Your task to perform on an android device: Add "apple airpods pro" to the cart on amazon Image 0: 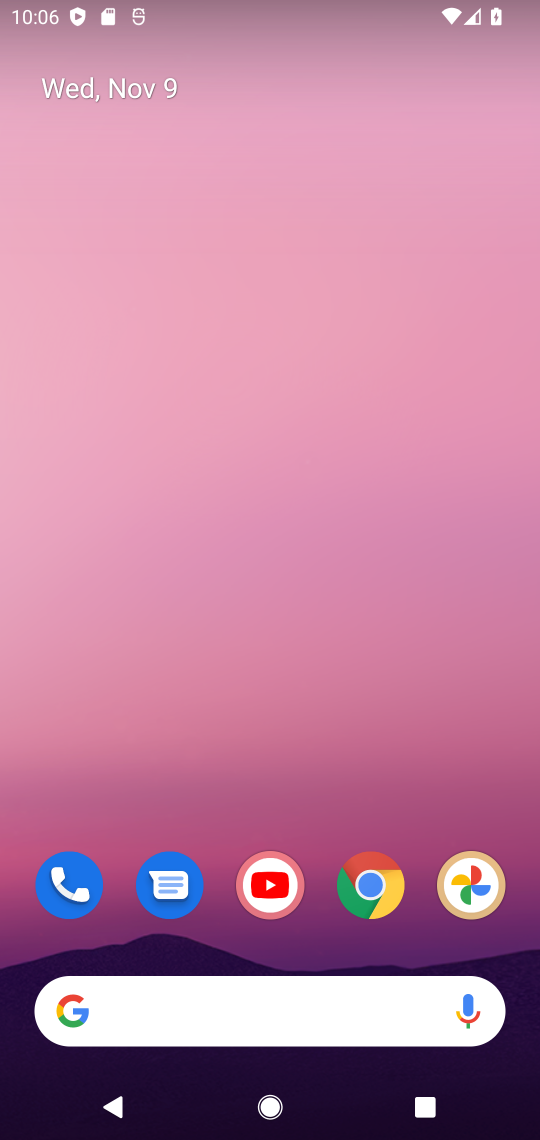
Step 0: click (358, 897)
Your task to perform on an android device: Add "apple airpods pro" to the cart on amazon Image 1: 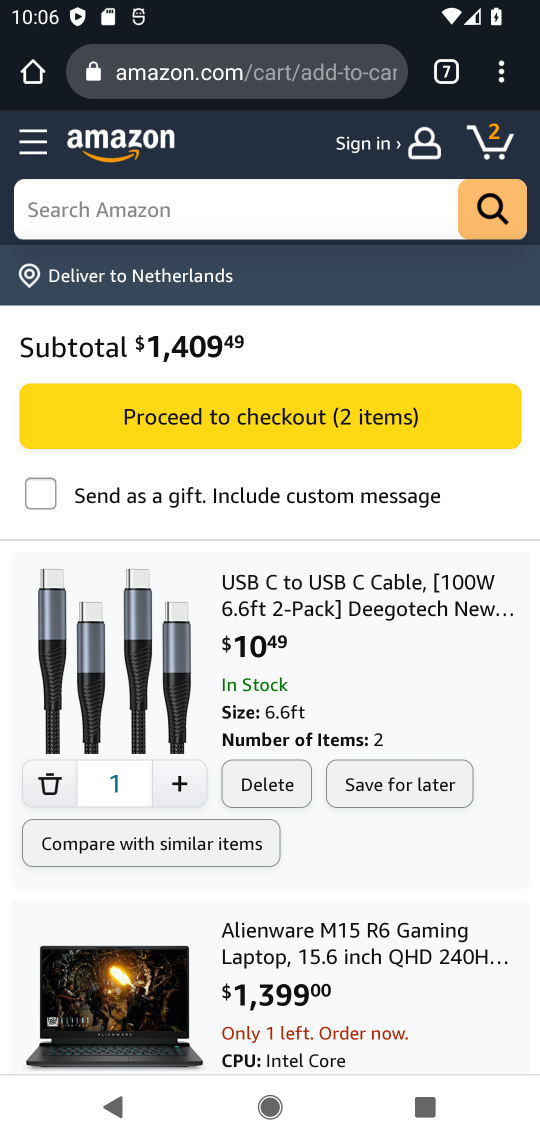
Step 1: click (229, 214)
Your task to perform on an android device: Add "apple airpods pro" to the cart on amazon Image 2: 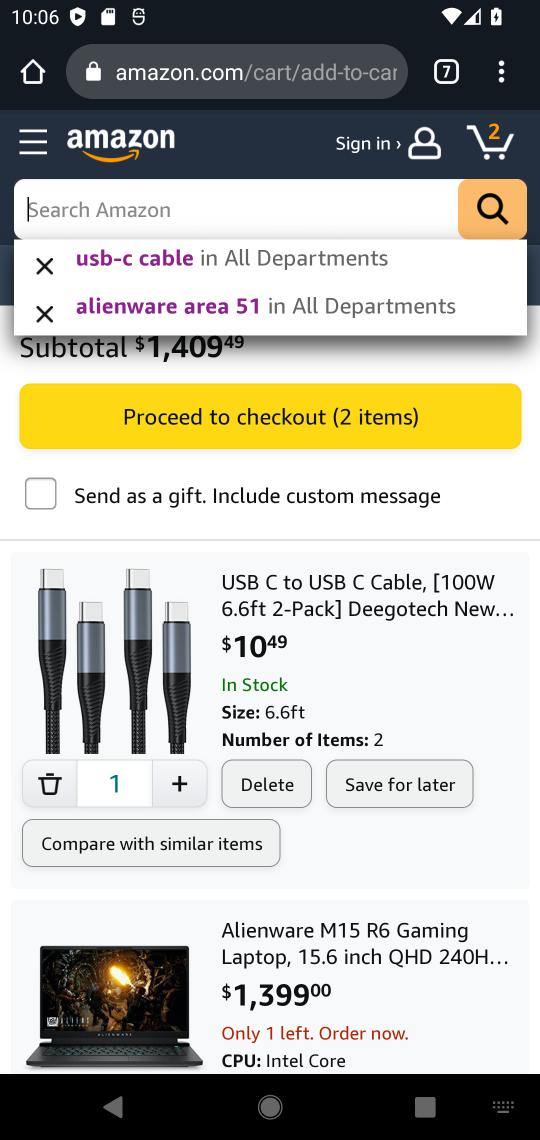
Step 2: type "apple airpods pro"
Your task to perform on an android device: Add "apple airpods pro" to the cart on amazon Image 3: 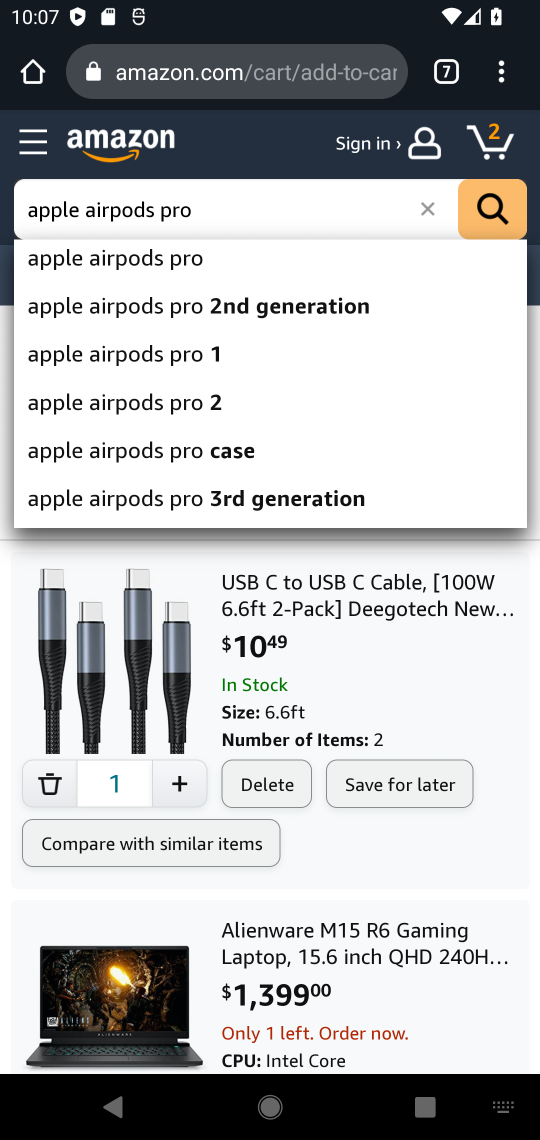
Step 3: click (145, 253)
Your task to perform on an android device: Add "apple airpods pro" to the cart on amazon Image 4: 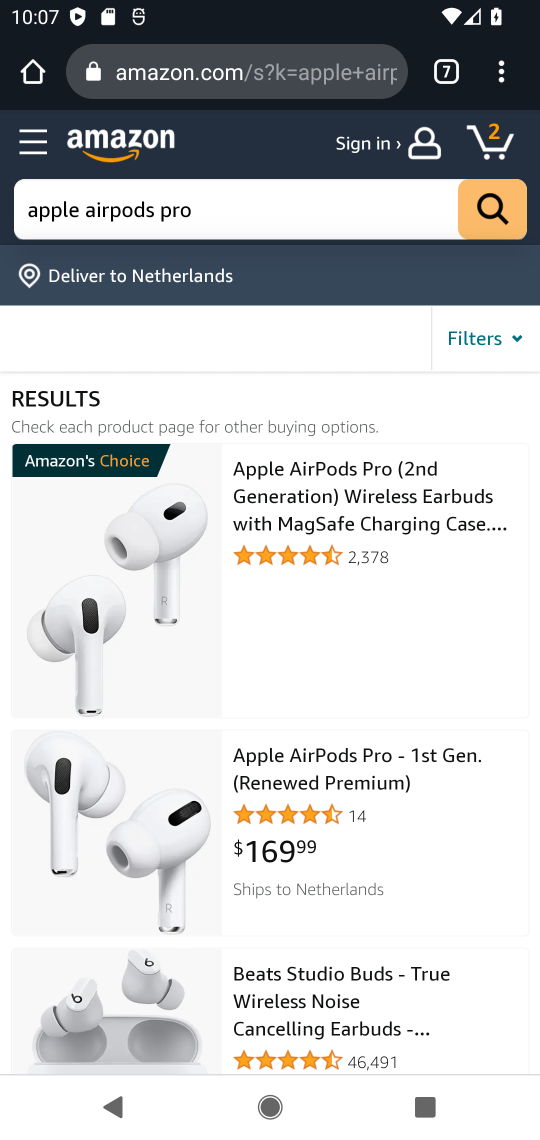
Step 4: click (377, 513)
Your task to perform on an android device: Add "apple airpods pro" to the cart on amazon Image 5: 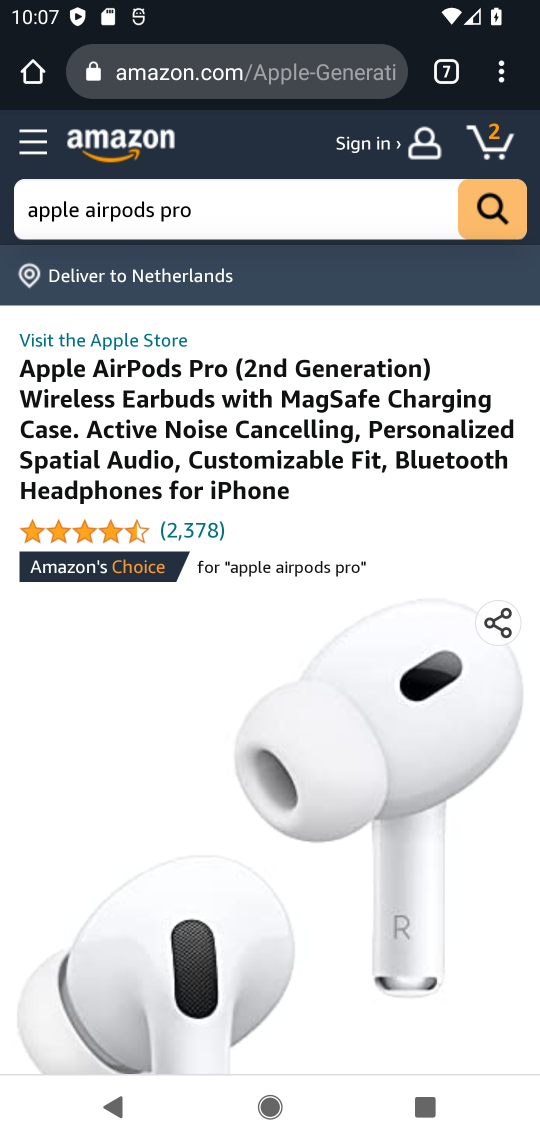
Step 5: drag from (358, 1015) to (411, 433)
Your task to perform on an android device: Add "apple airpods pro" to the cart on amazon Image 6: 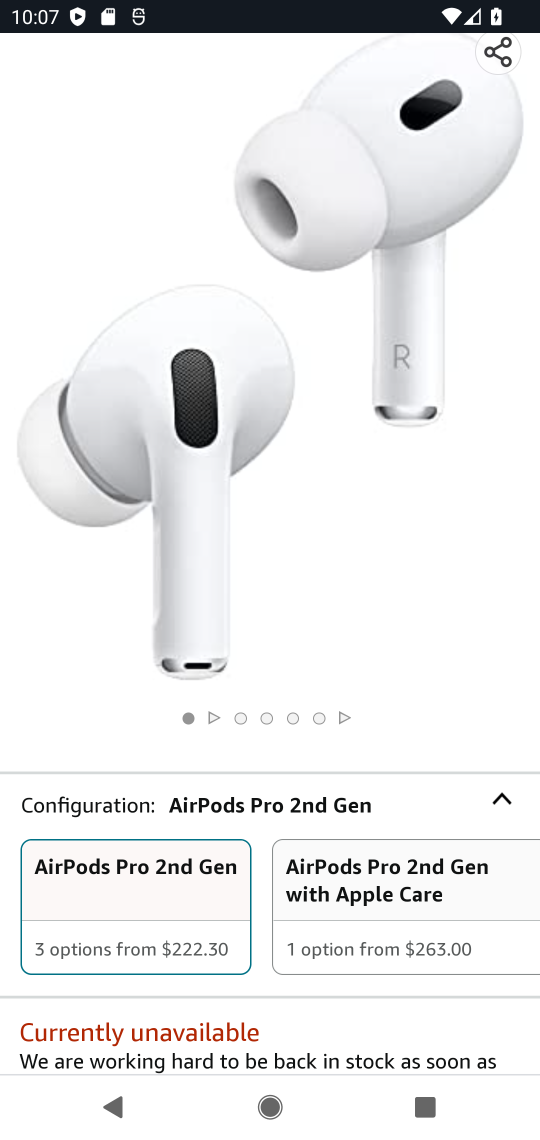
Step 6: drag from (378, 1025) to (370, 540)
Your task to perform on an android device: Add "apple airpods pro" to the cart on amazon Image 7: 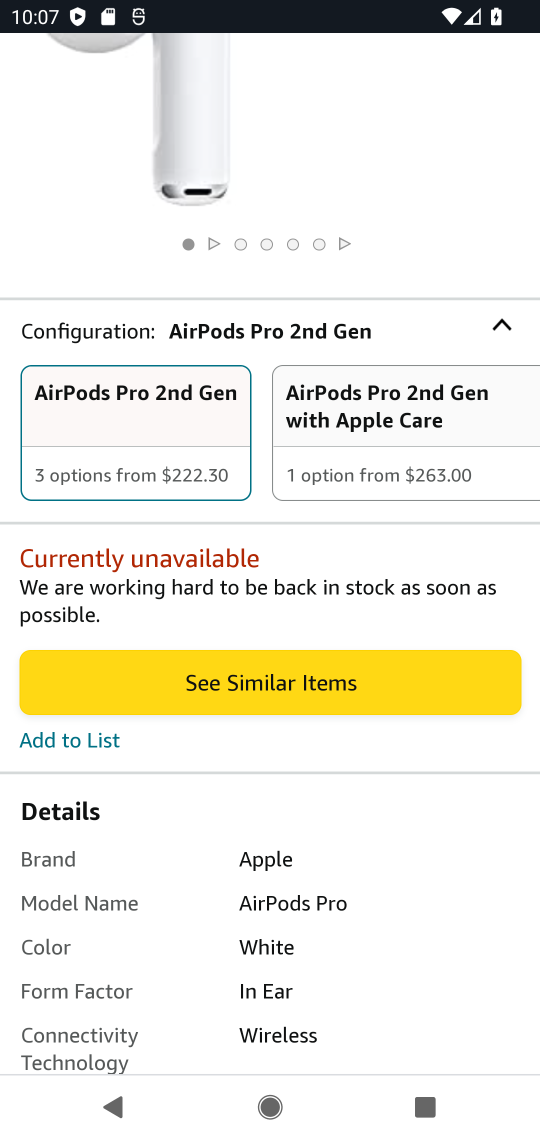
Step 7: click (280, 683)
Your task to perform on an android device: Add "apple airpods pro" to the cart on amazon Image 8: 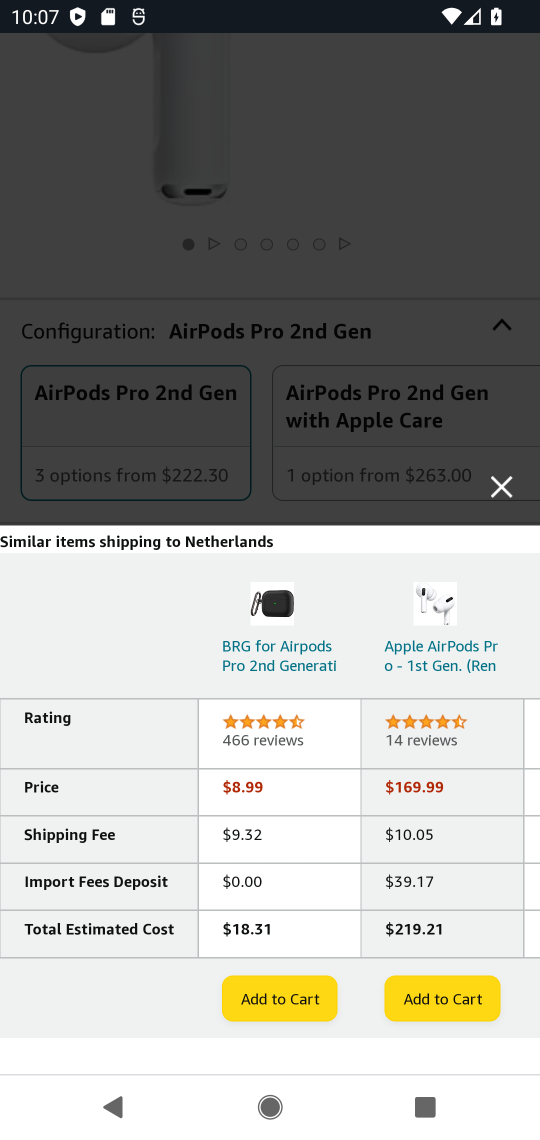
Step 8: click (254, 988)
Your task to perform on an android device: Add "apple airpods pro" to the cart on amazon Image 9: 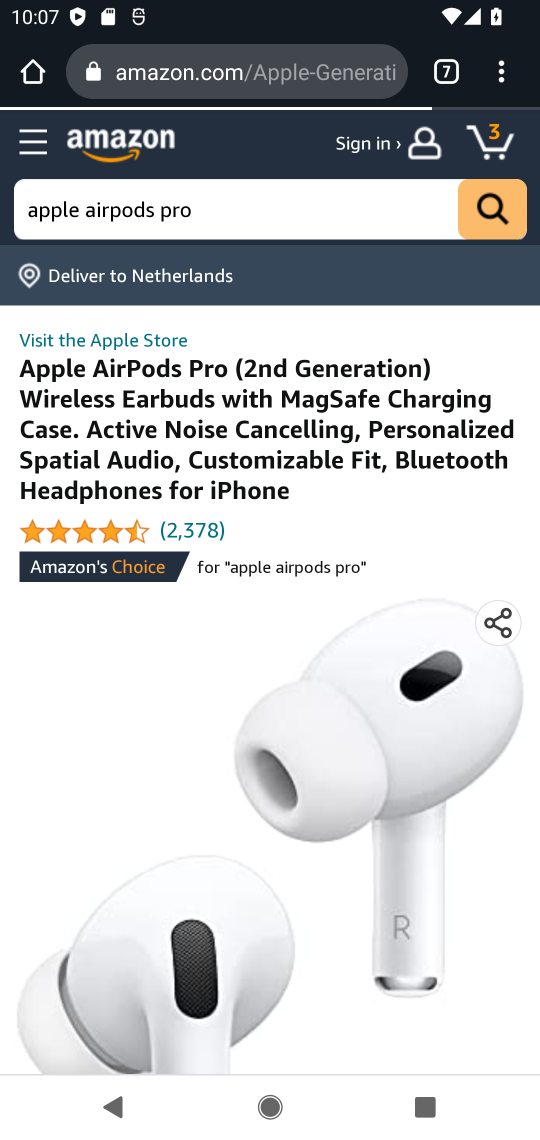
Step 9: task complete